Your task to perform on an android device: open a new tab in the chrome app Image 0: 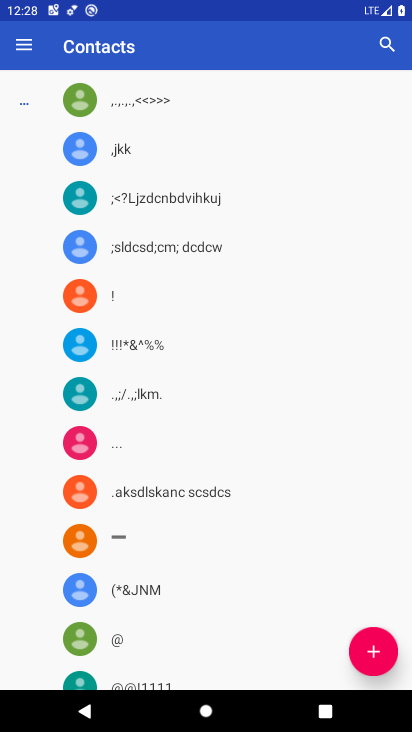
Step 0: drag from (193, 585) to (197, 208)
Your task to perform on an android device: open a new tab in the chrome app Image 1: 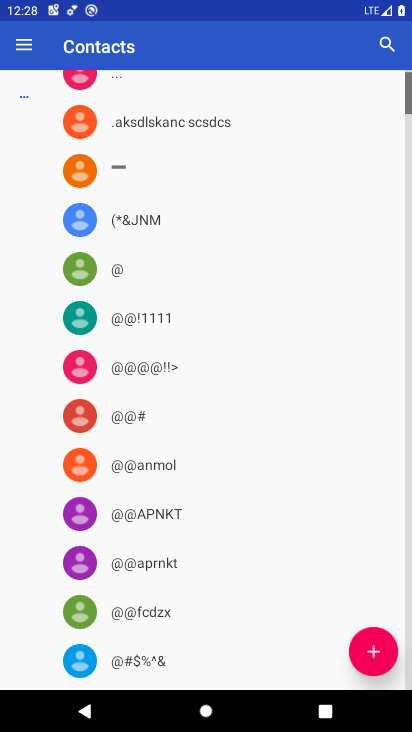
Step 1: press home button
Your task to perform on an android device: open a new tab in the chrome app Image 2: 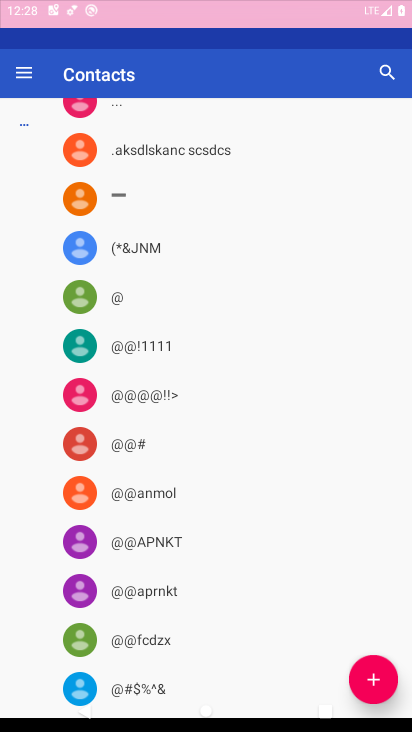
Step 2: drag from (206, 611) to (162, 48)
Your task to perform on an android device: open a new tab in the chrome app Image 3: 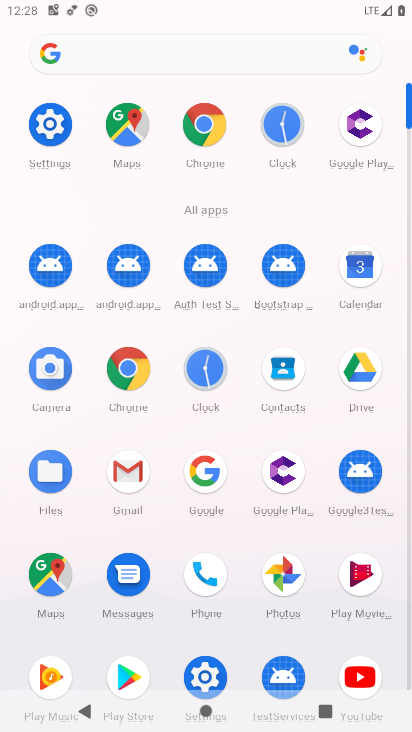
Step 3: click (129, 357)
Your task to perform on an android device: open a new tab in the chrome app Image 4: 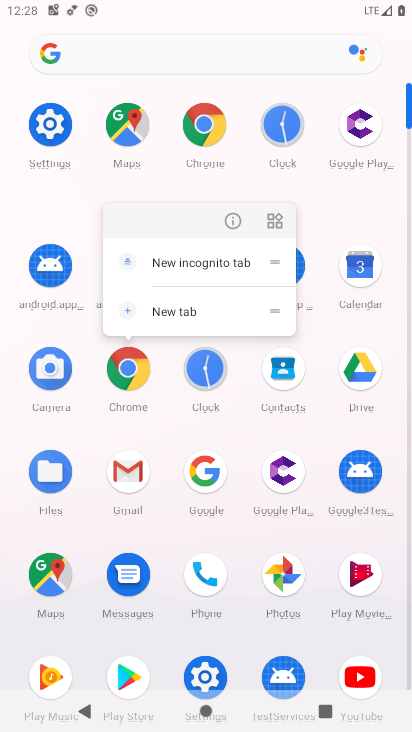
Step 4: click (222, 215)
Your task to perform on an android device: open a new tab in the chrome app Image 5: 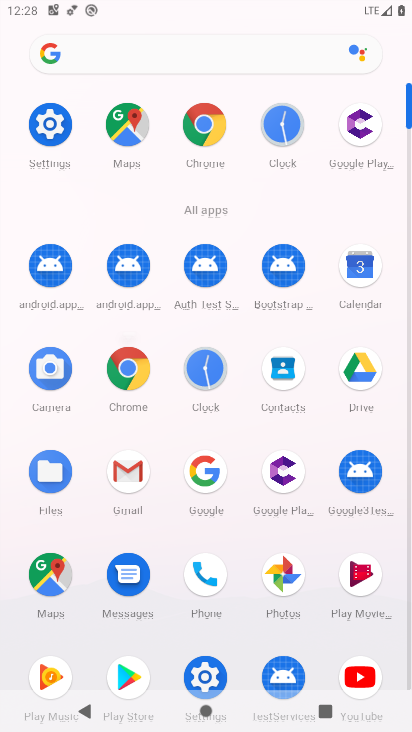
Step 5: click (237, 222)
Your task to perform on an android device: open a new tab in the chrome app Image 6: 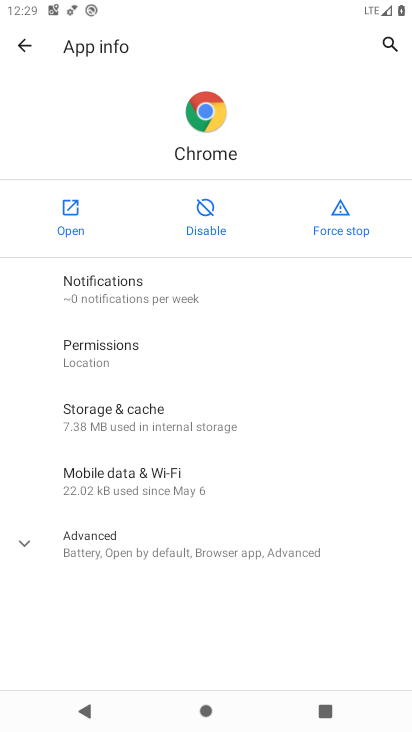
Step 6: click (74, 241)
Your task to perform on an android device: open a new tab in the chrome app Image 7: 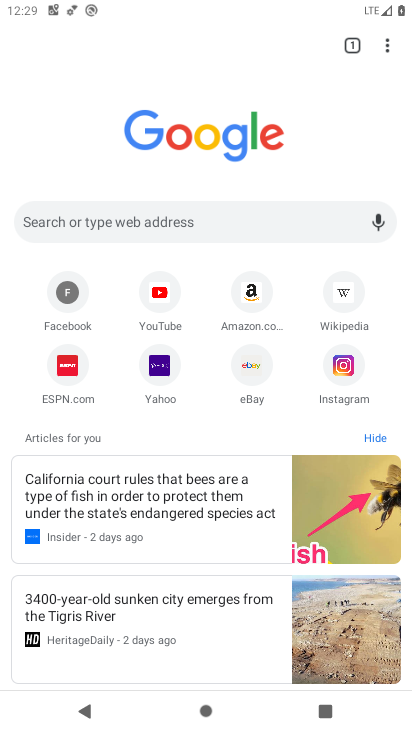
Step 7: click (386, 55)
Your task to perform on an android device: open a new tab in the chrome app Image 8: 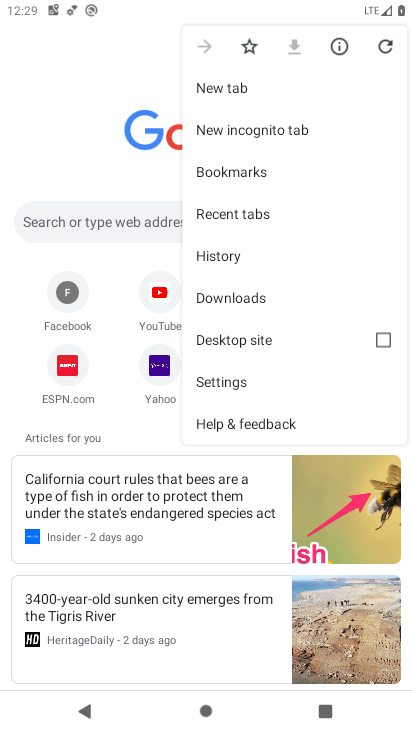
Step 8: click (267, 102)
Your task to perform on an android device: open a new tab in the chrome app Image 9: 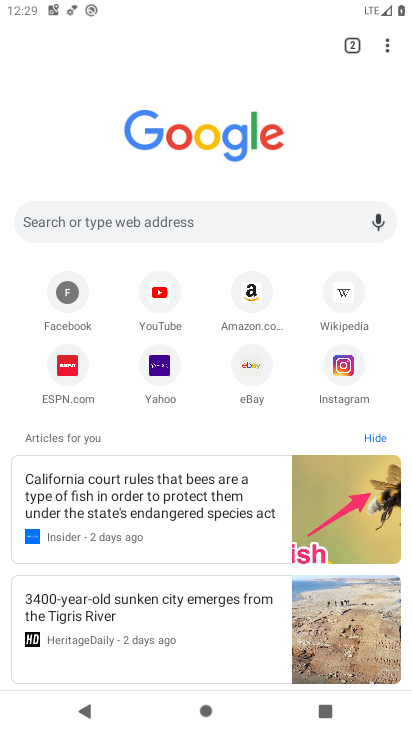
Step 9: task complete